Your task to perform on an android device: add a contact in the contacts app Image 0: 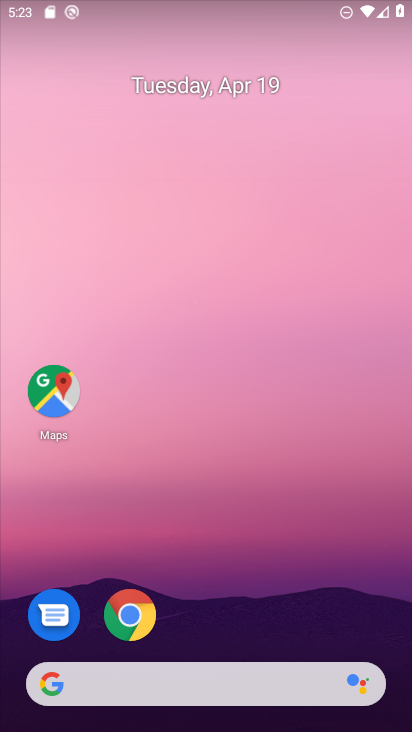
Step 0: drag from (196, 719) to (196, 119)
Your task to perform on an android device: add a contact in the contacts app Image 1: 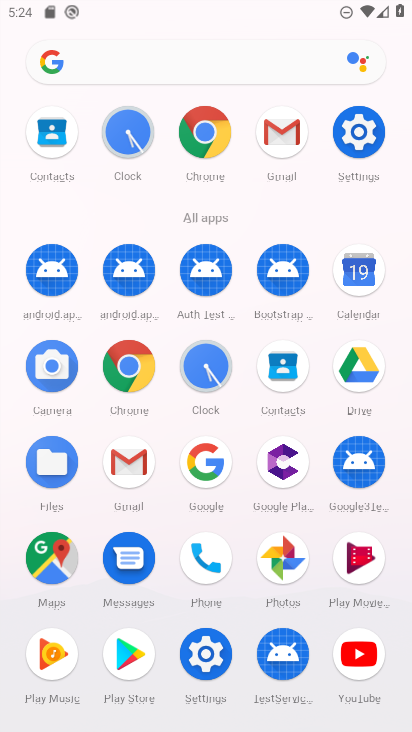
Step 1: click (282, 375)
Your task to perform on an android device: add a contact in the contacts app Image 2: 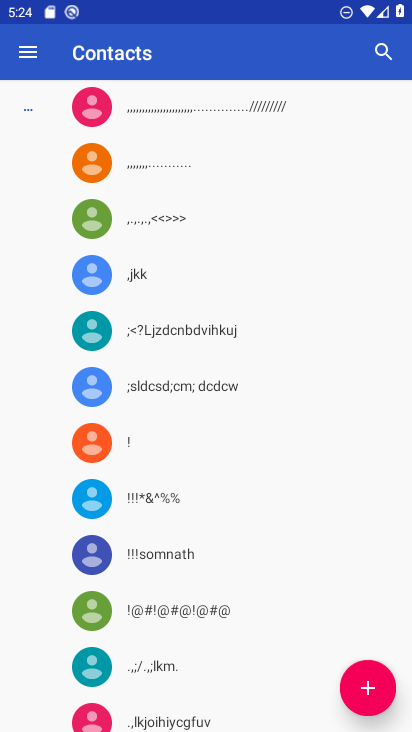
Step 2: click (367, 679)
Your task to perform on an android device: add a contact in the contacts app Image 3: 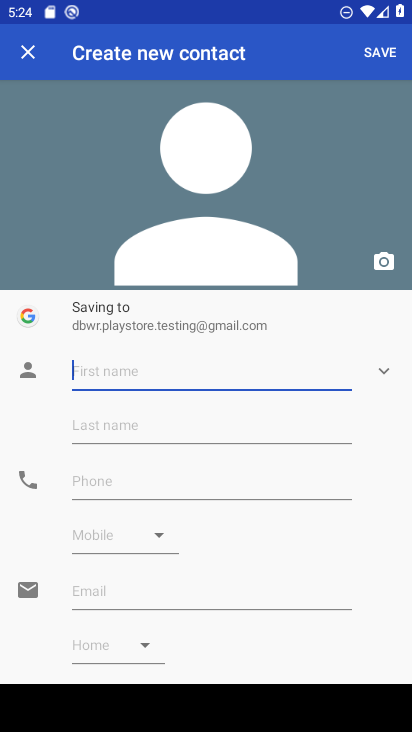
Step 3: type "keiran lee"
Your task to perform on an android device: add a contact in the contacts app Image 4: 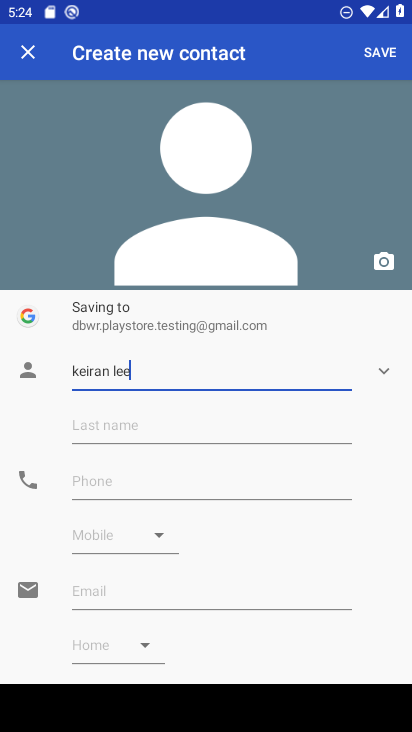
Step 4: click (138, 484)
Your task to perform on an android device: add a contact in the contacts app Image 5: 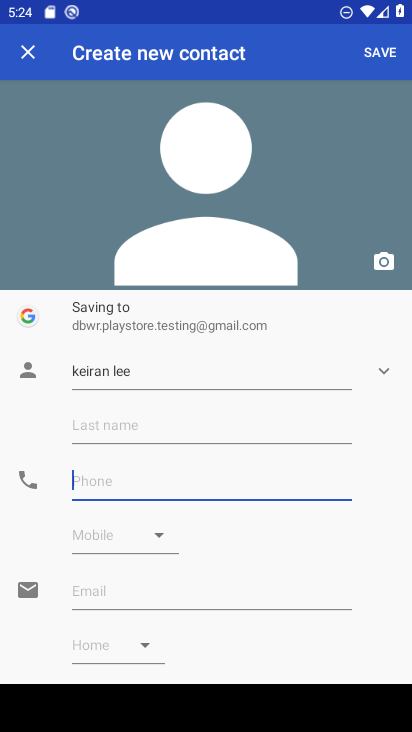
Step 5: type "0987890"
Your task to perform on an android device: add a contact in the contacts app Image 6: 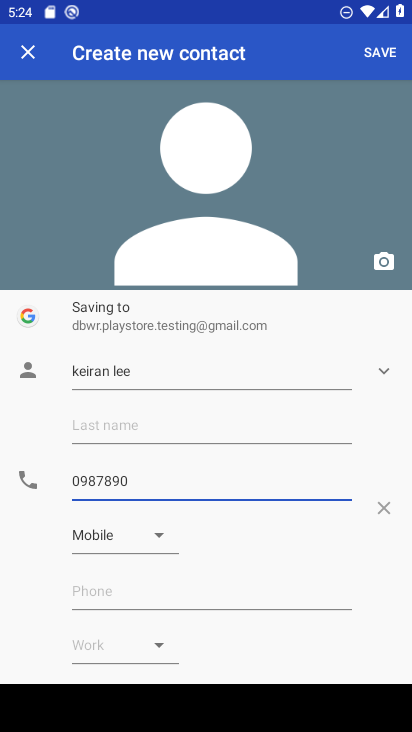
Step 6: click (373, 51)
Your task to perform on an android device: add a contact in the contacts app Image 7: 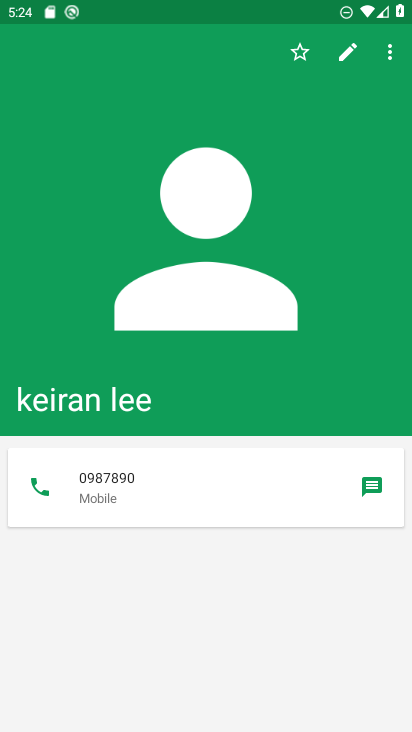
Step 7: task complete